Your task to perform on an android device: star an email in the gmail app Image 0: 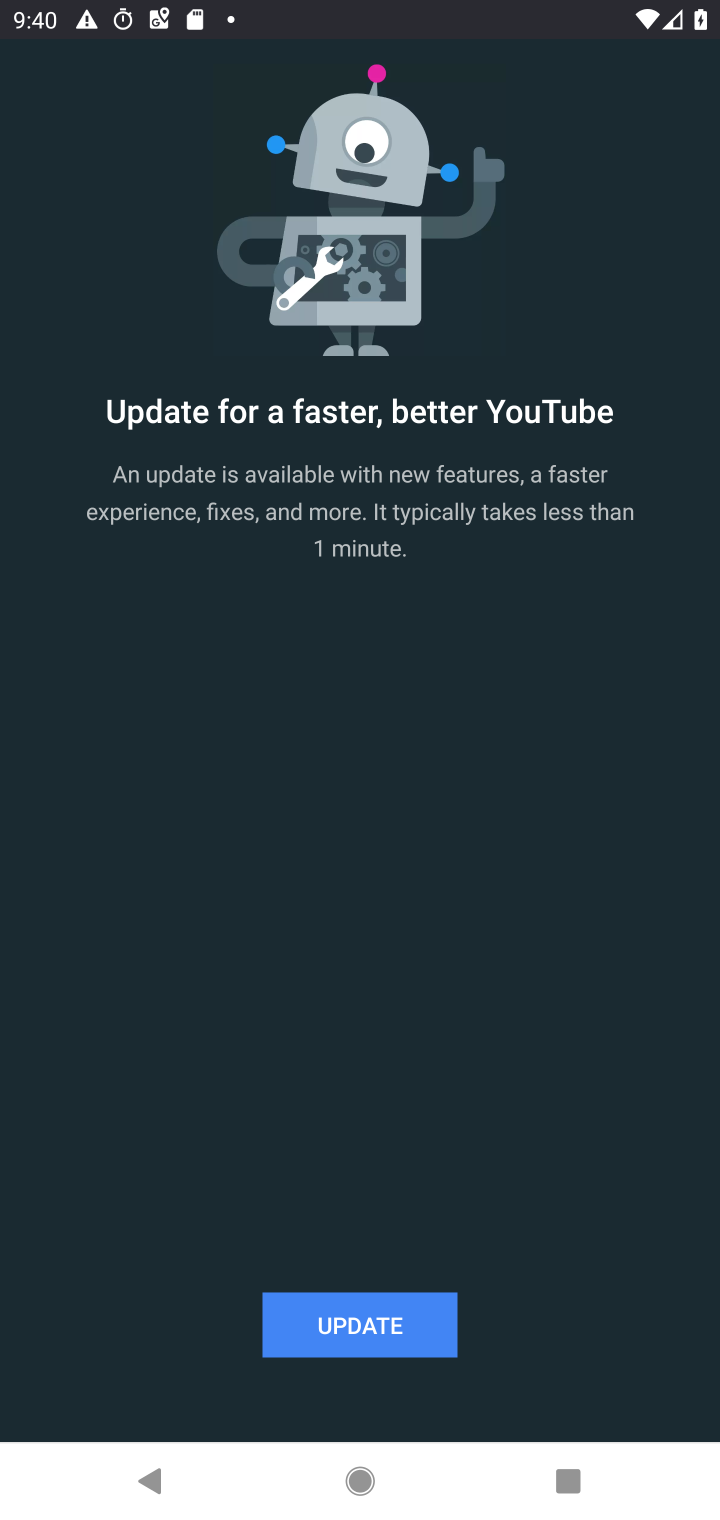
Step 0: press home button
Your task to perform on an android device: star an email in the gmail app Image 1: 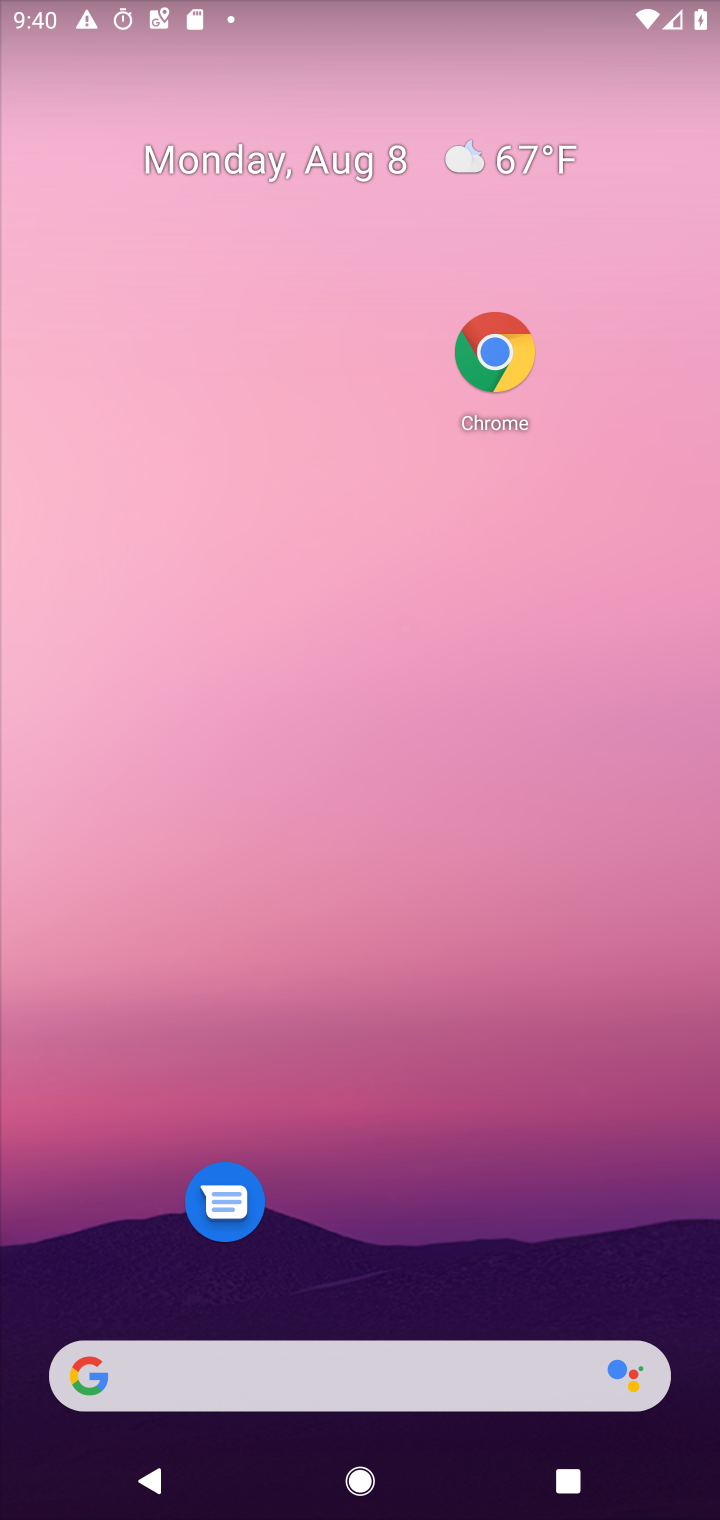
Step 1: drag from (336, 1121) to (517, 285)
Your task to perform on an android device: star an email in the gmail app Image 2: 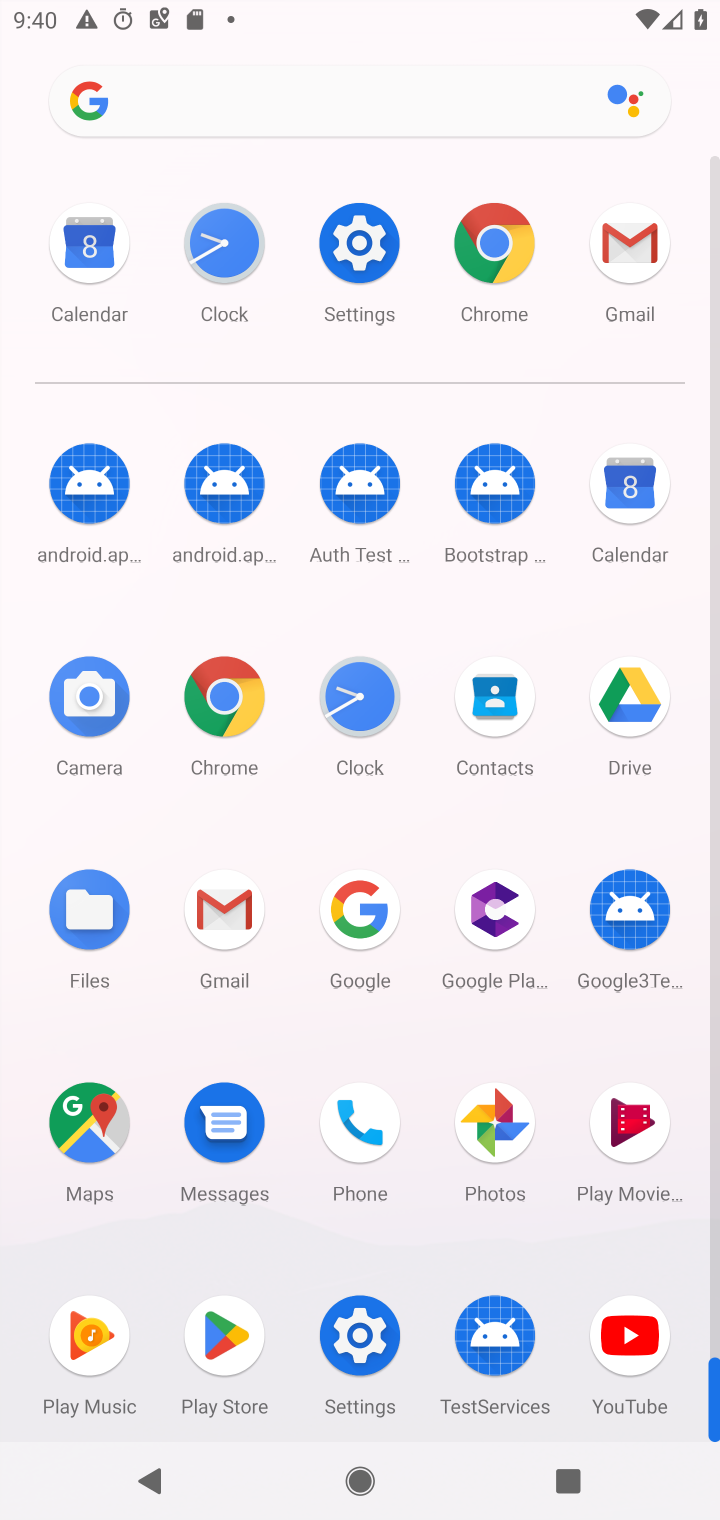
Step 2: click (229, 945)
Your task to perform on an android device: star an email in the gmail app Image 3: 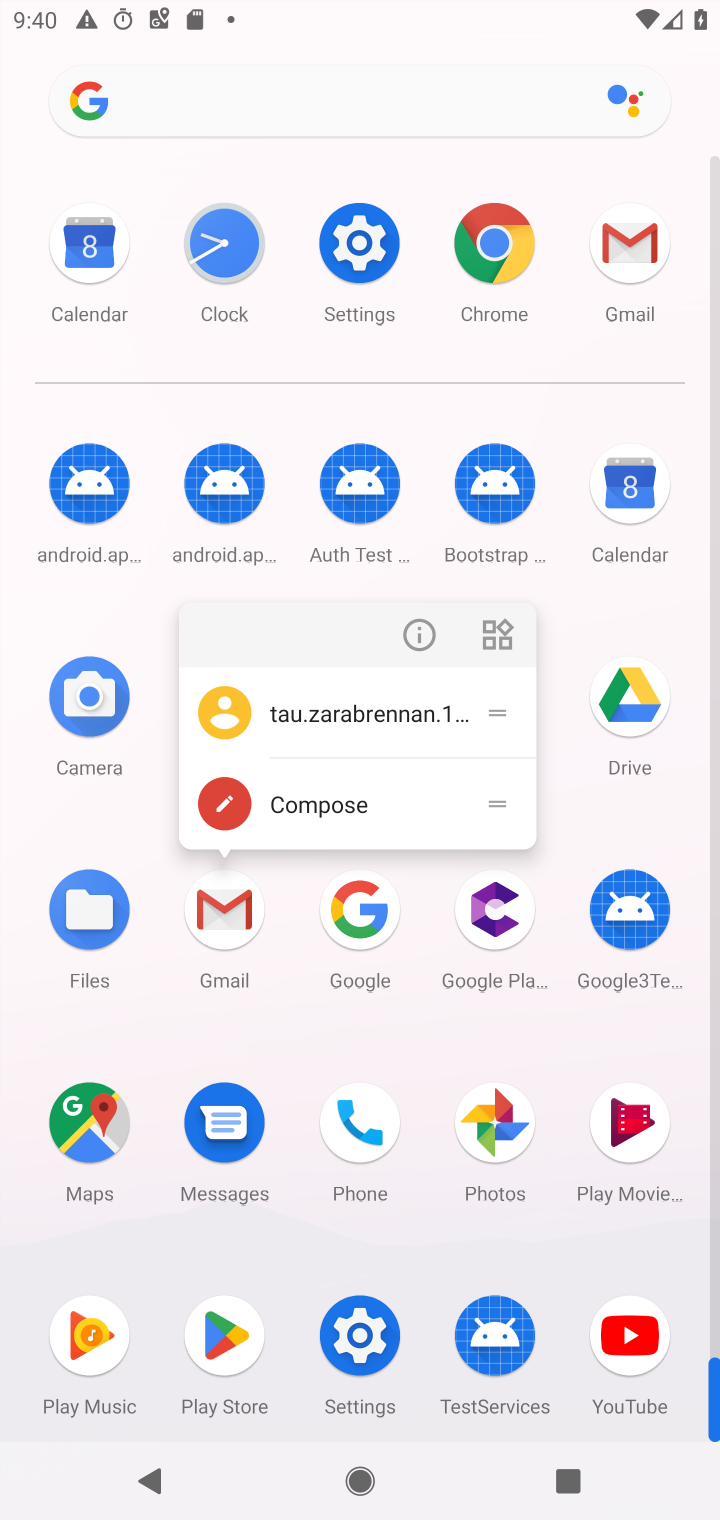
Step 3: click (219, 930)
Your task to perform on an android device: star an email in the gmail app Image 4: 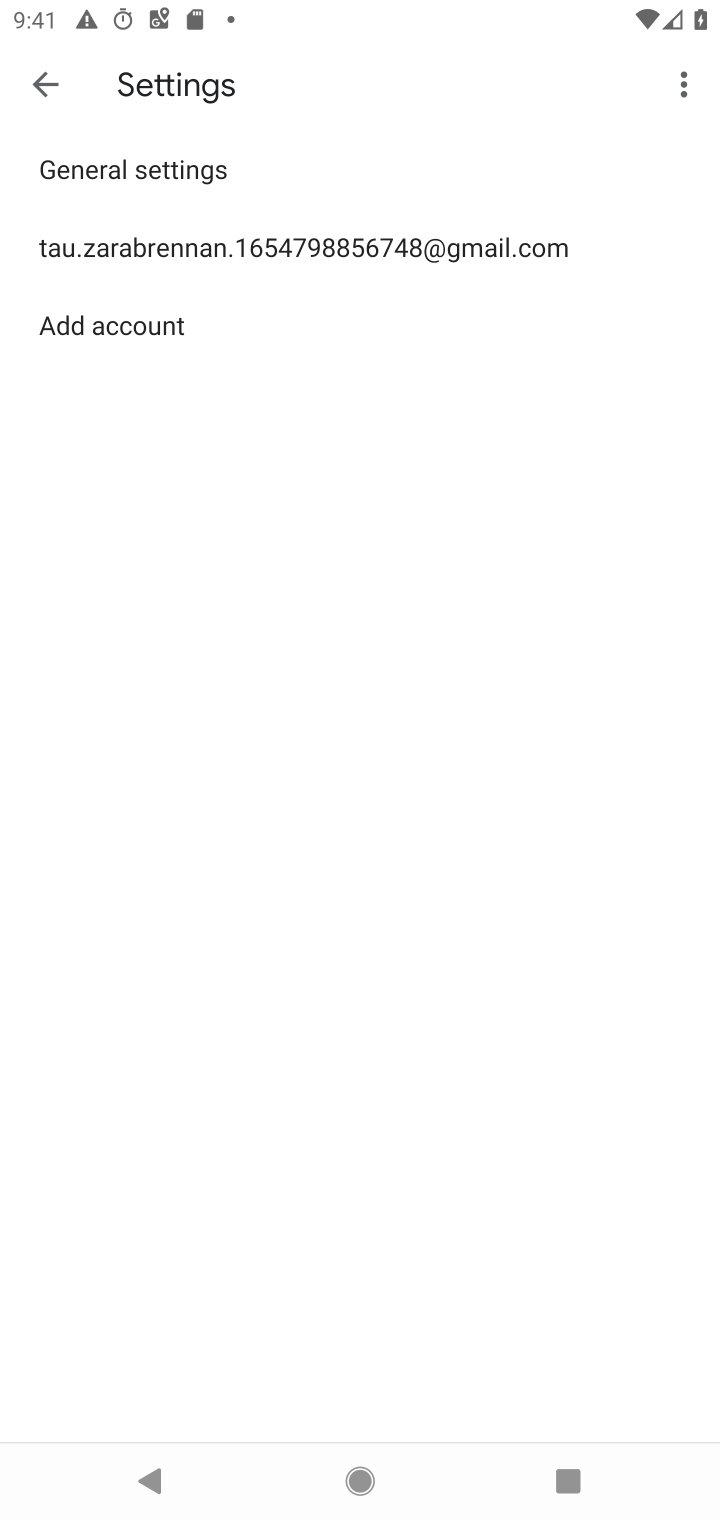
Step 4: click (36, 65)
Your task to perform on an android device: star an email in the gmail app Image 5: 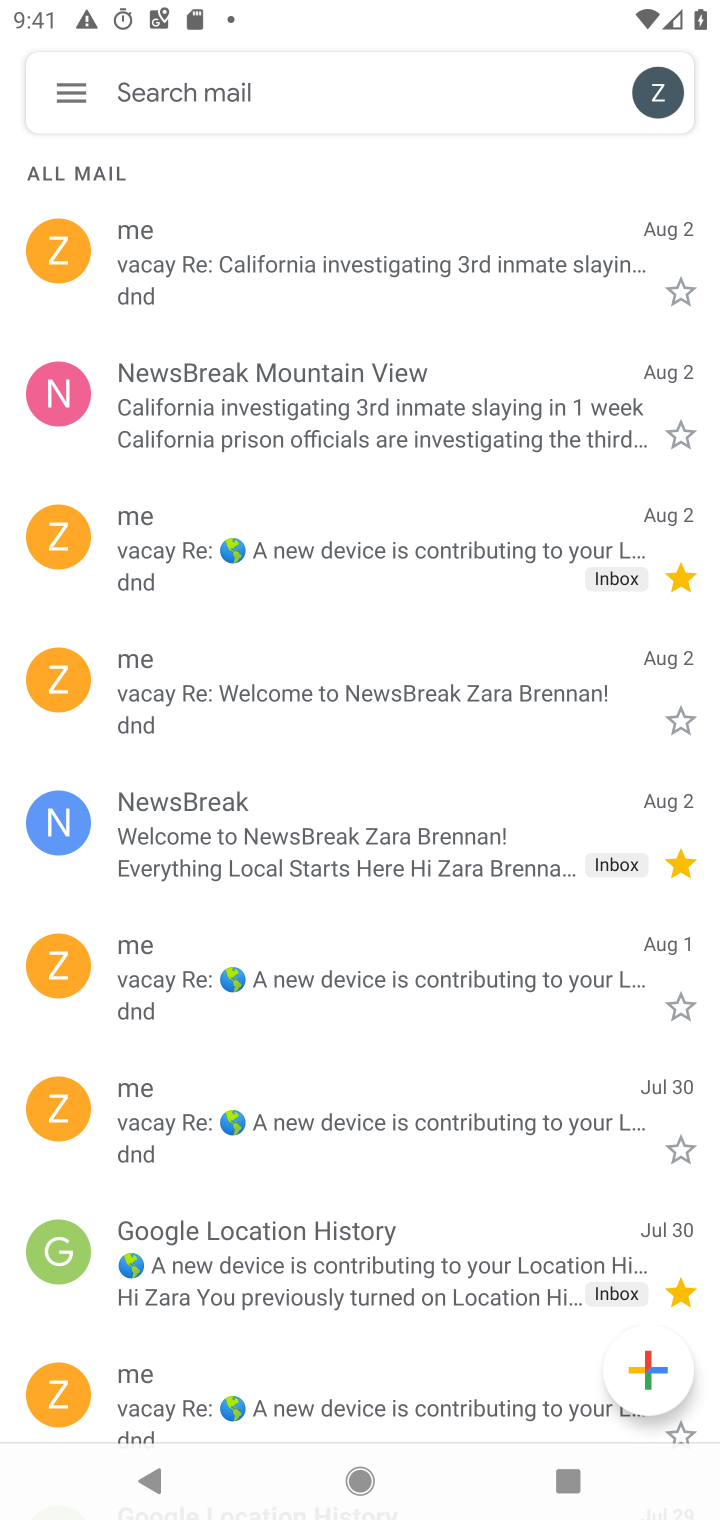
Step 5: click (72, 113)
Your task to perform on an android device: star an email in the gmail app Image 6: 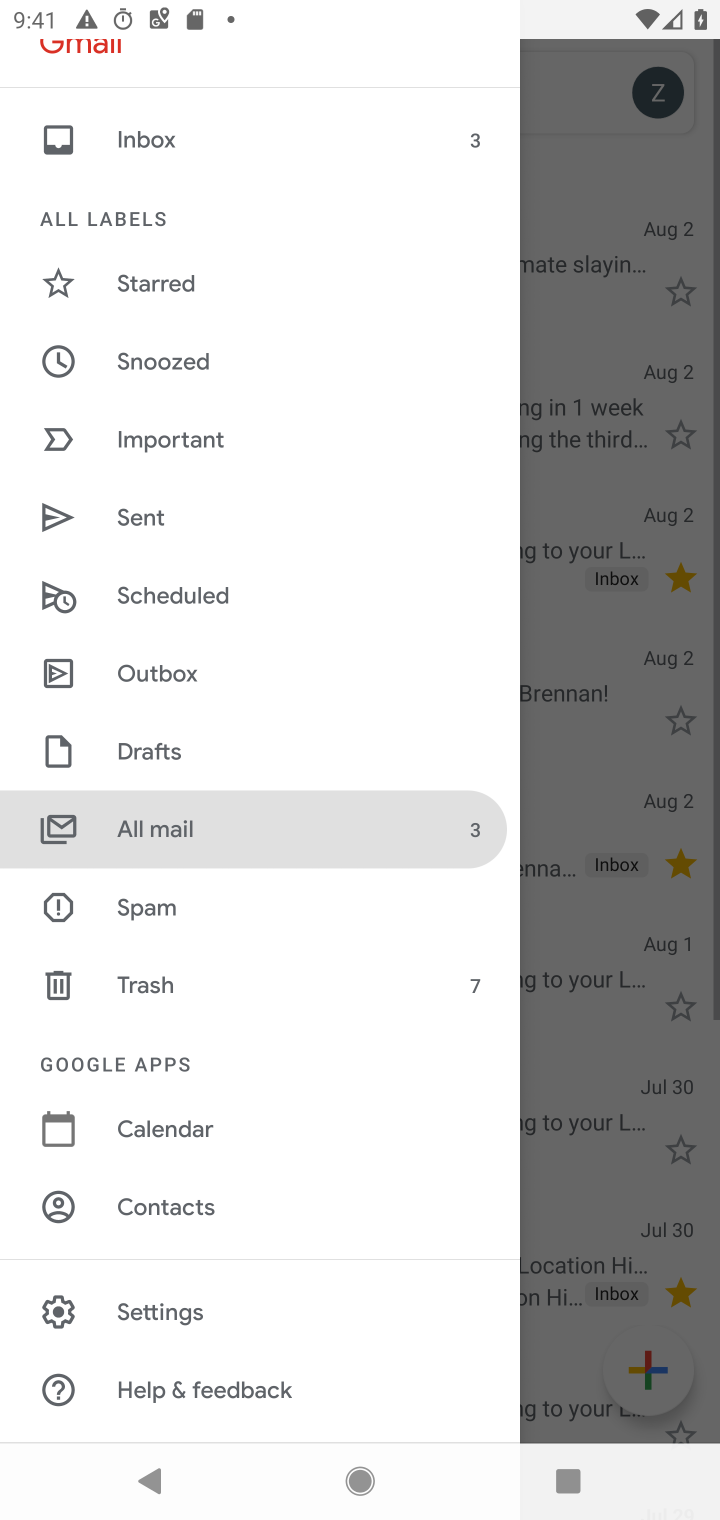
Step 6: click (636, 178)
Your task to perform on an android device: star an email in the gmail app Image 7: 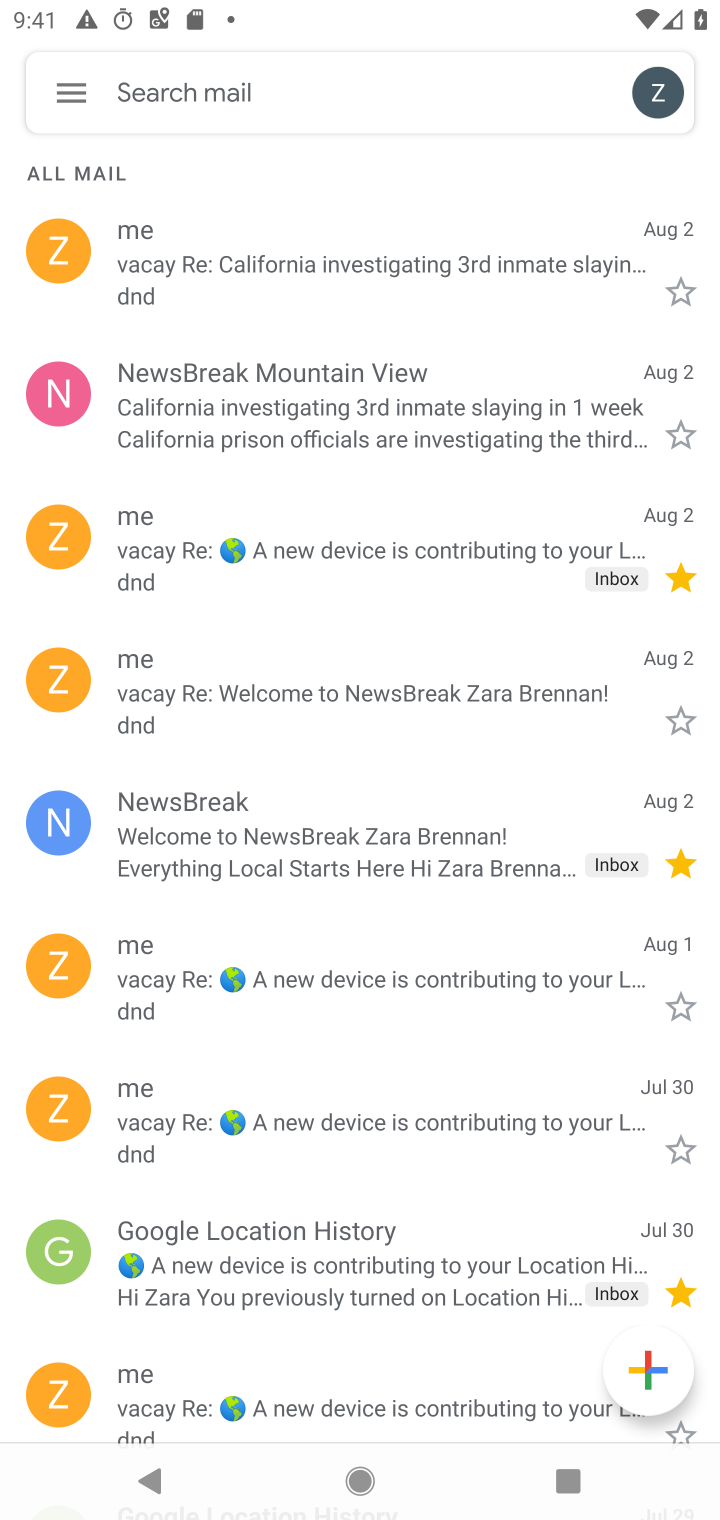
Step 7: click (679, 291)
Your task to perform on an android device: star an email in the gmail app Image 8: 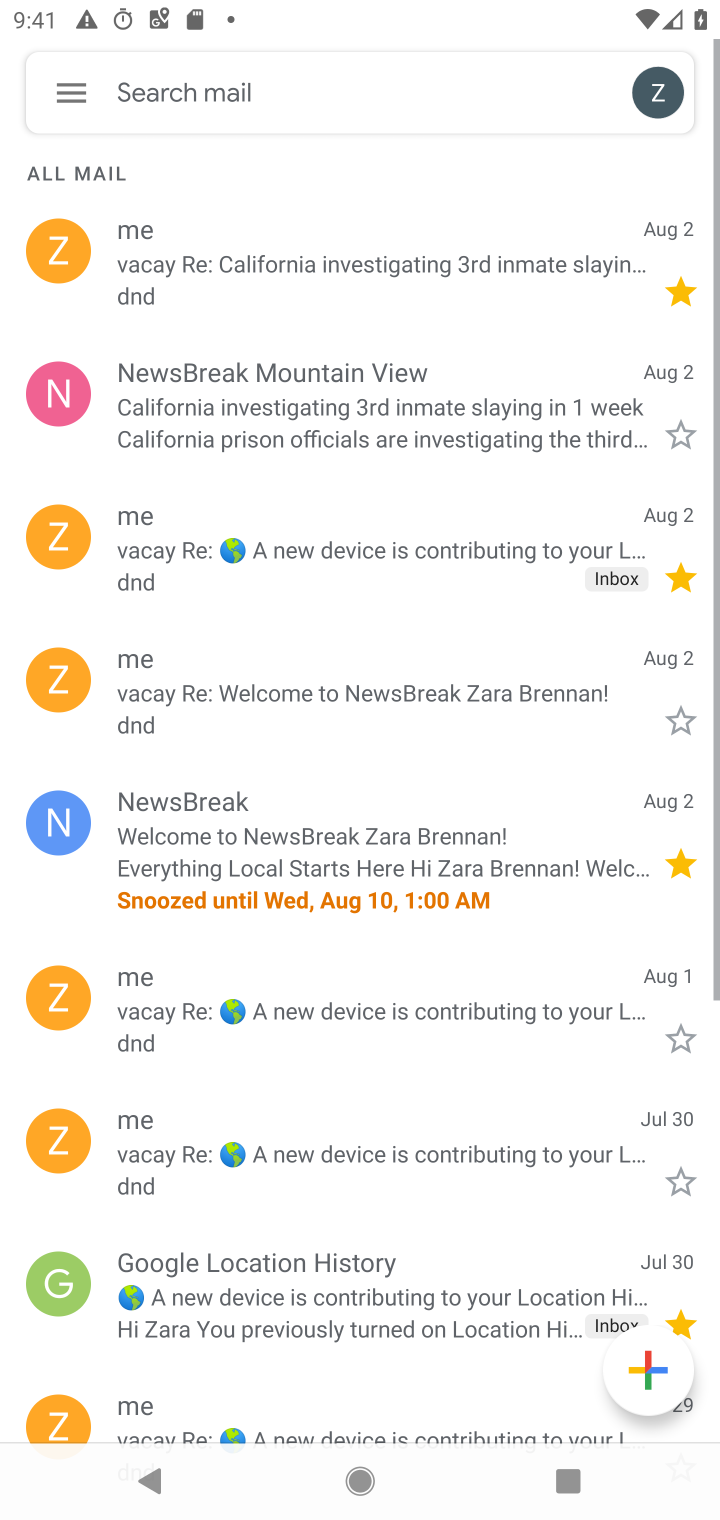
Step 8: task complete